Your task to perform on an android device: Open calendar and show me the first week of next month Image 0: 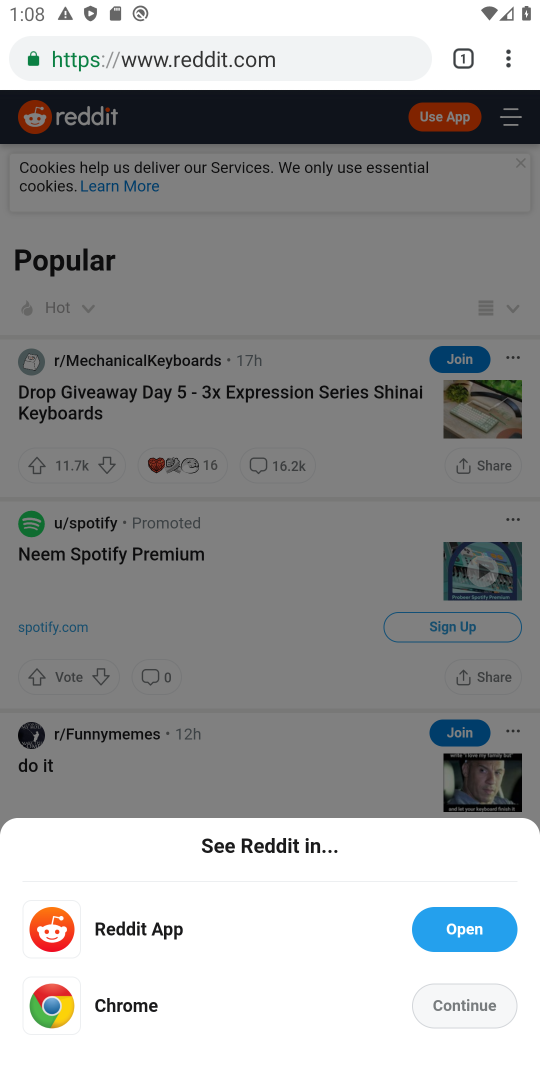
Step 0: press home button
Your task to perform on an android device: Open calendar and show me the first week of next month Image 1: 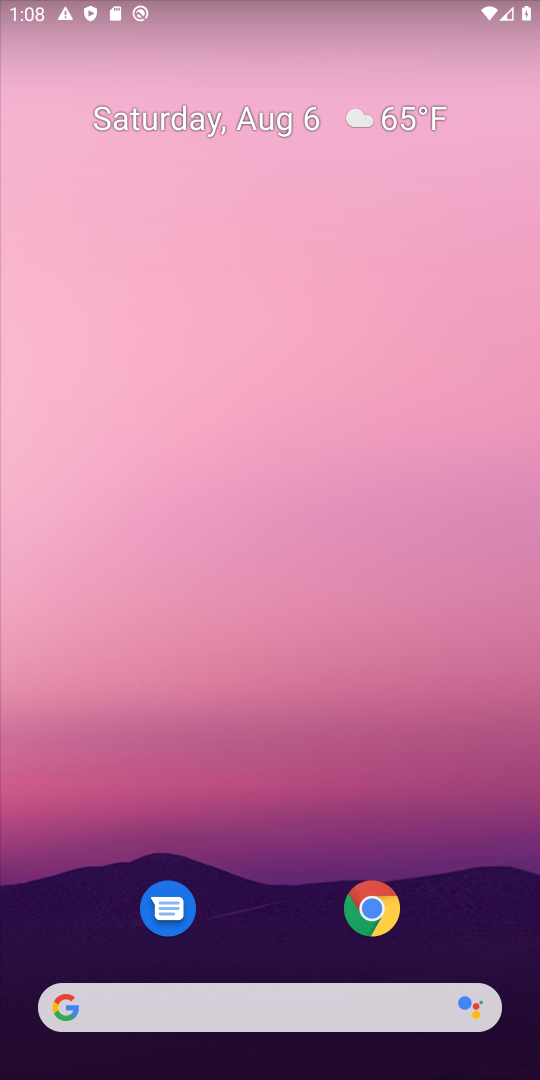
Step 1: drag from (253, 921) to (241, 239)
Your task to perform on an android device: Open calendar and show me the first week of next month Image 2: 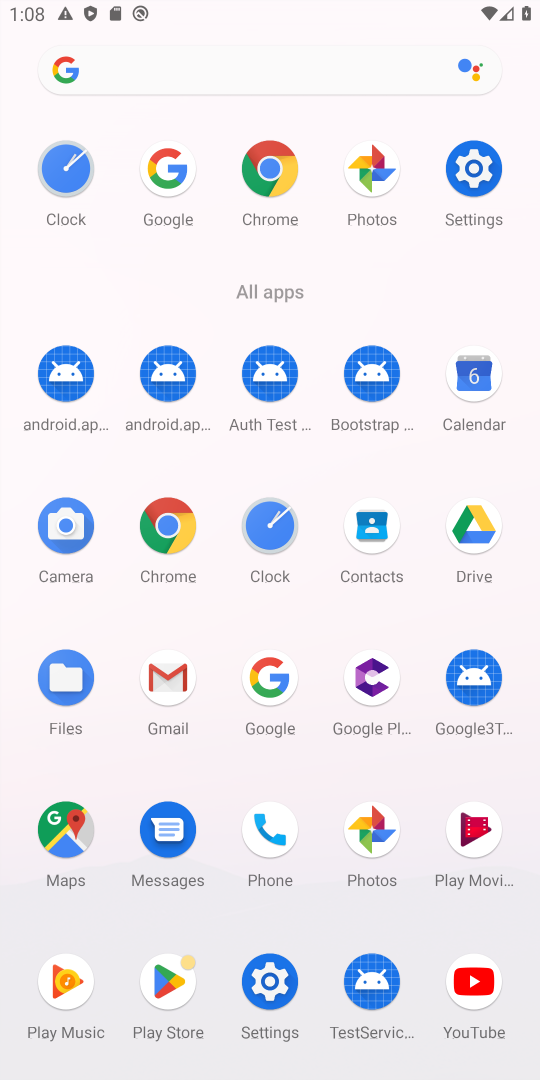
Step 2: click (472, 389)
Your task to perform on an android device: Open calendar and show me the first week of next month Image 3: 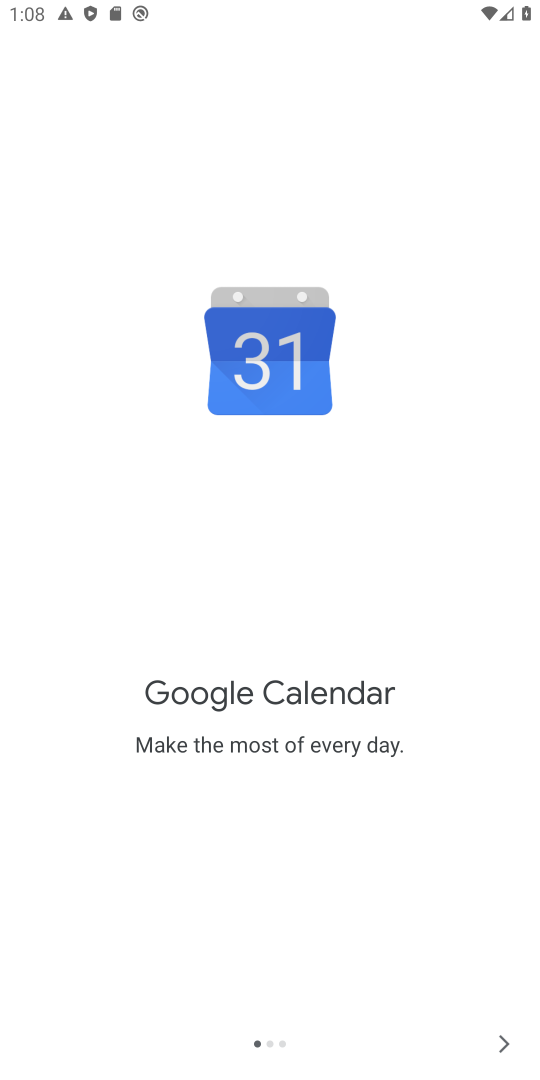
Step 3: click (500, 1047)
Your task to perform on an android device: Open calendar and show me the first week of next month Image 4: 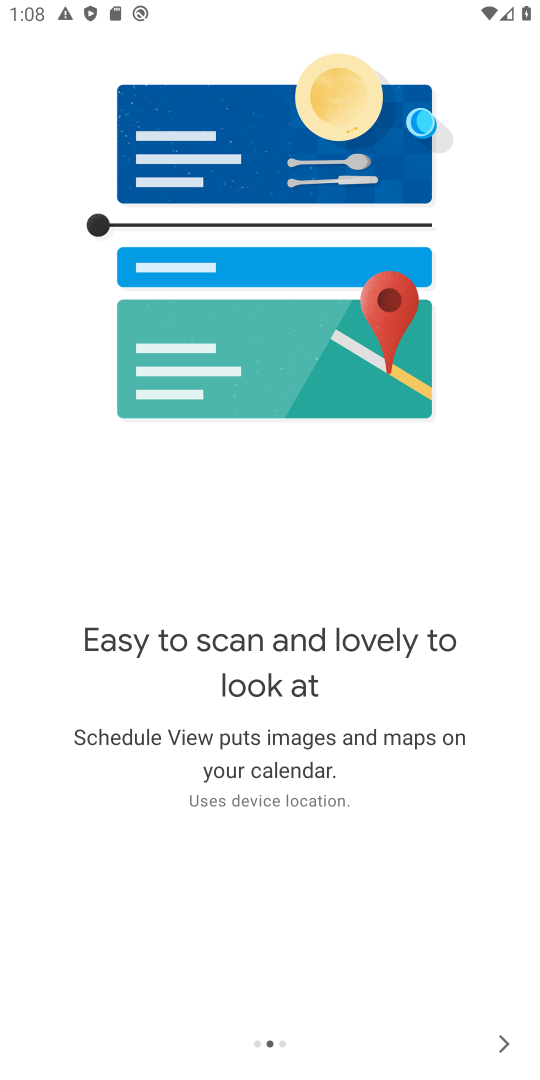
Step 4: click (500, 1047)
Your task to perform on an android device: Open calendar and show me the first week of next month Image 5: 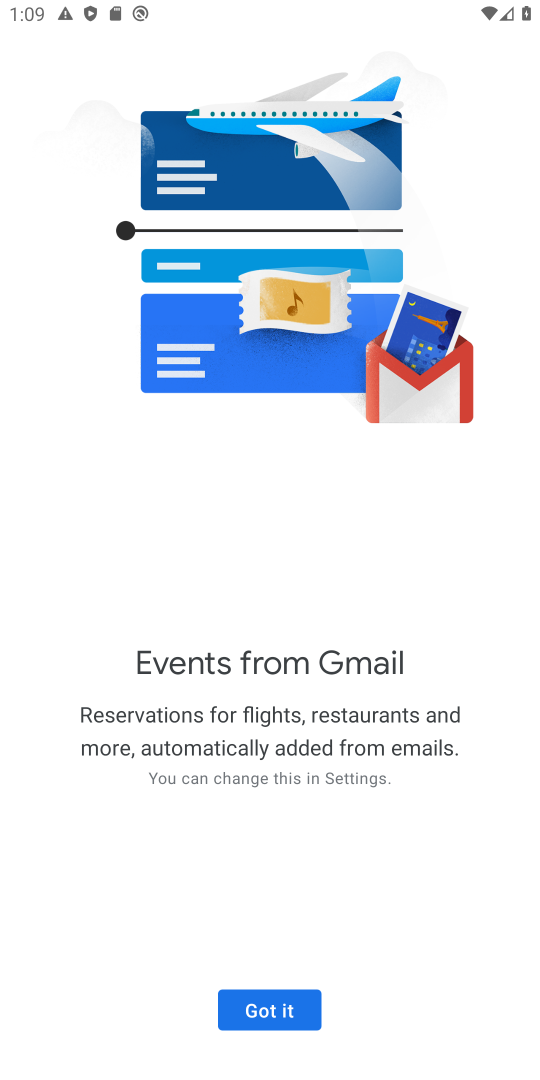
Step 5: click (280, 1023)
Your task to perform on an android device: Open calendar and show me the first week of next month Image 6: 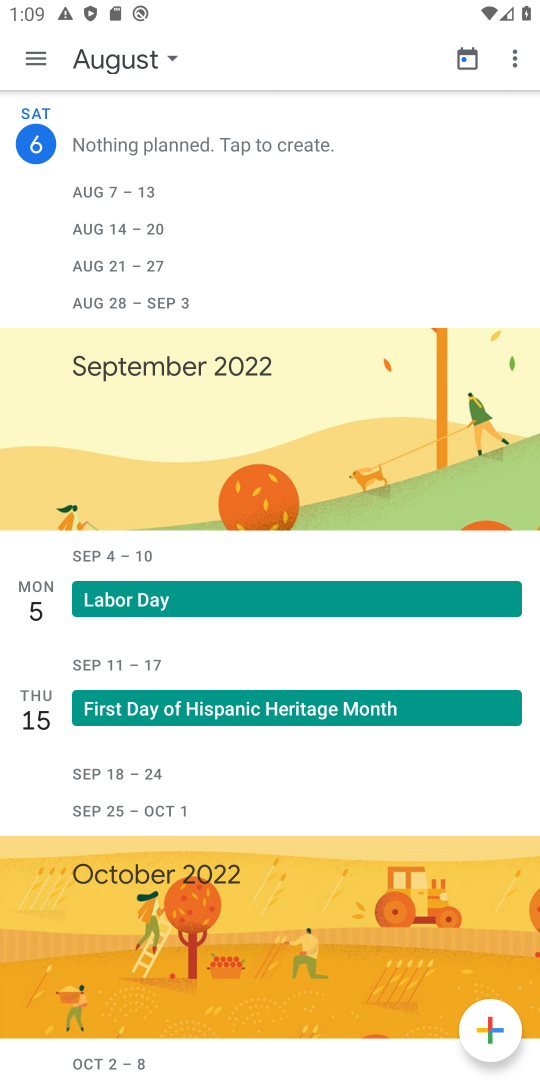
Step 6: click (144, 68)
Your task to perform on an android device: Open calendar and show me the first week of next month Image 7: 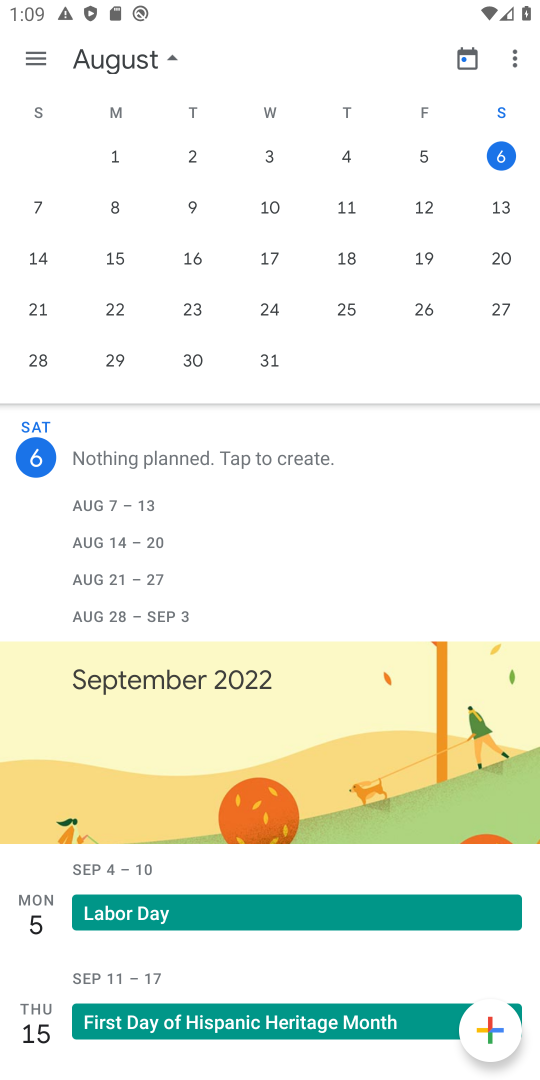
Step 7: task complete